Your task to perform on an android device: Go to Amazon Image 0: 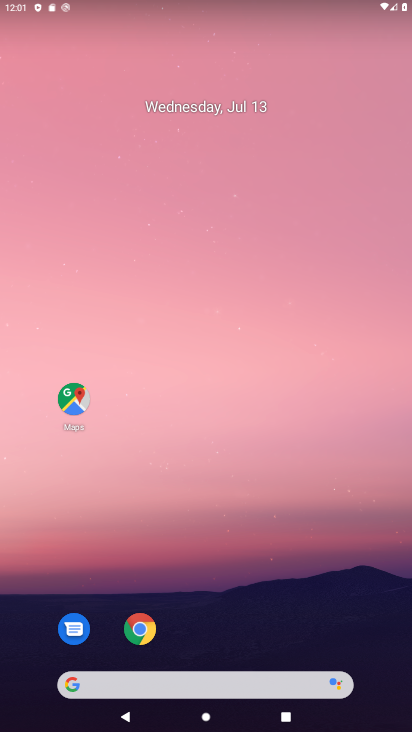
Step 0: drag from (202, 620) to (204, 231)
Your task to perform on an android device: Go to Amazon Image 1: 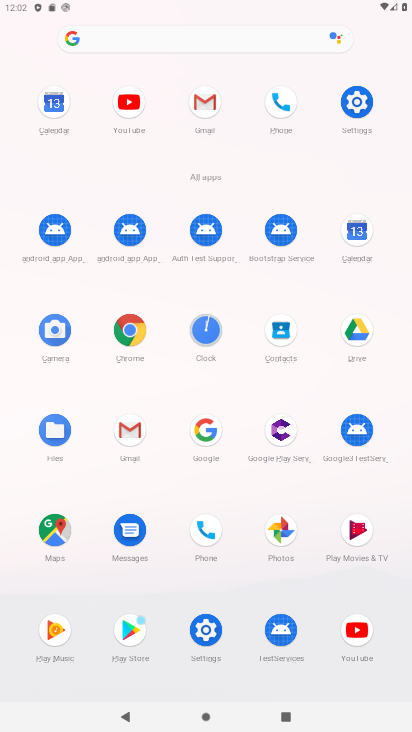
Step 1: click (136, 326)
Your task to perform on an android device: Go to Amazon Image 2: 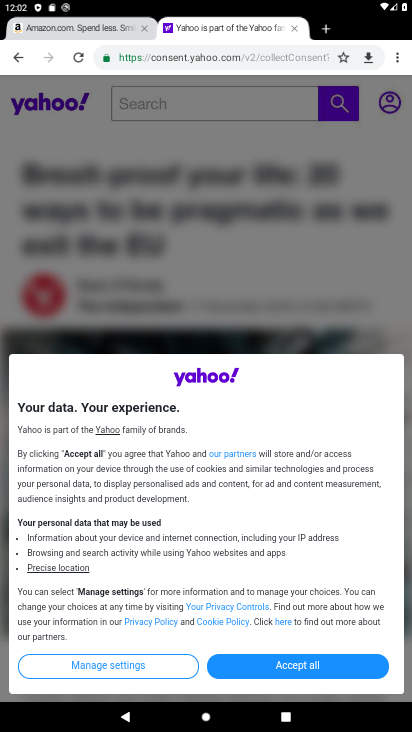
Step 2: click (321, 26)
Your task to perform on an android device: Go to Amazon Image 3: 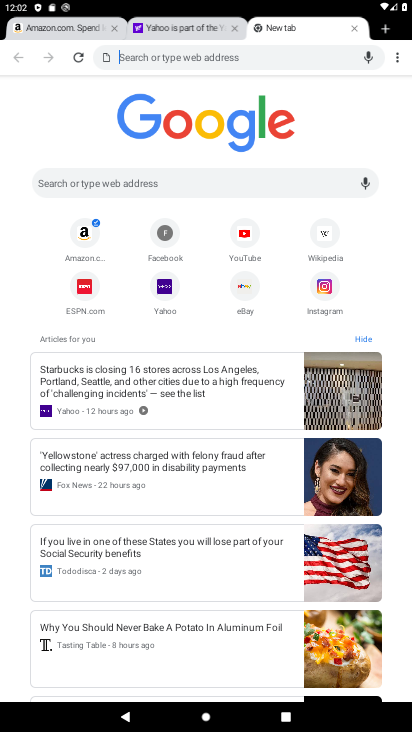
Step 3: click (72, 245)
Your task to perform on an android device: Go to Amazon Image 4: 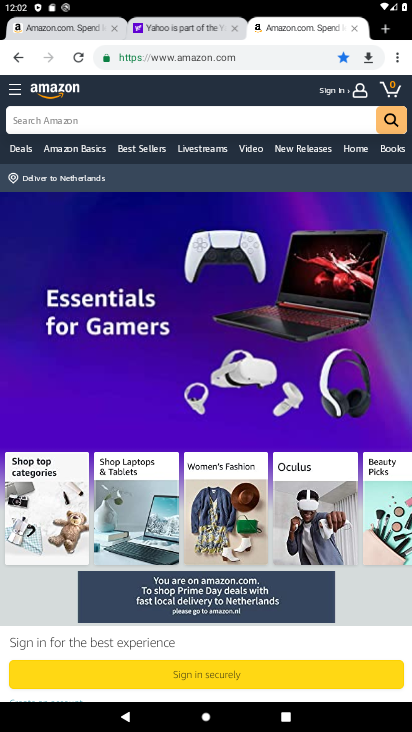
Step 4: task complete